Your task to perform on an android device: Show me the alarms in the clock app Image 0: 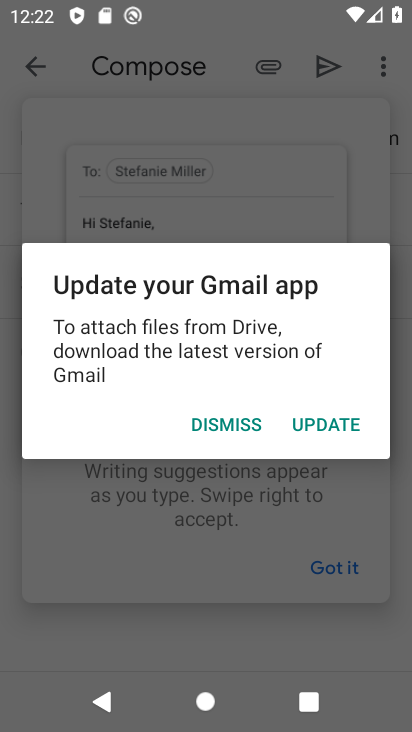
Step 0: press home button
Your task to perform on an android device: Show me the alarms in the clock app Image 1: 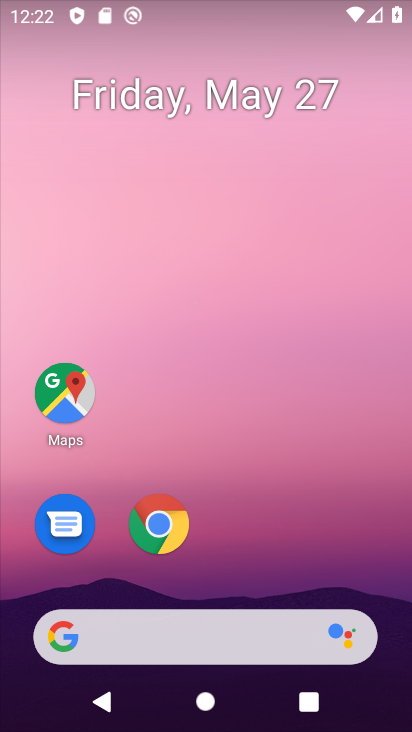
Step 1: drag from (257, 532) to (286, 29)
Your task to perform on an android device: Show me the alarms in the clock app Image 2: 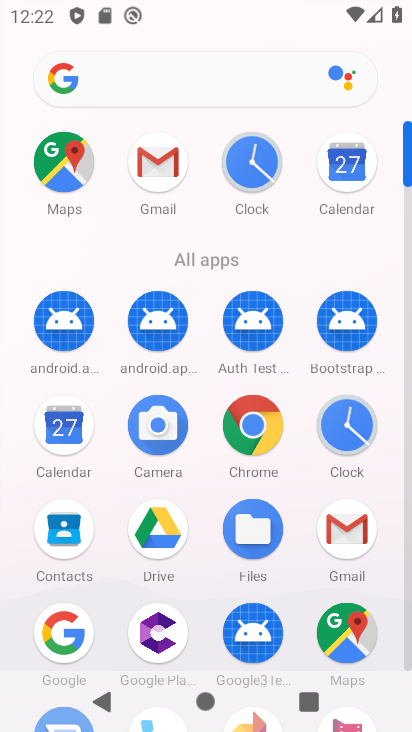
Step 2: click (265, 161)
Your task to perform on an android device: Show me the alarms in the clock app Image 3: 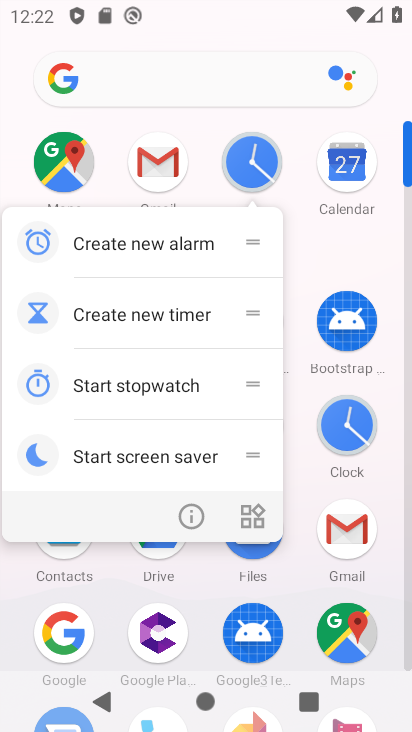
Step 3: click (250, 169)
Your task to perform on an android device: Show me the alarms in the clock app Image 4: 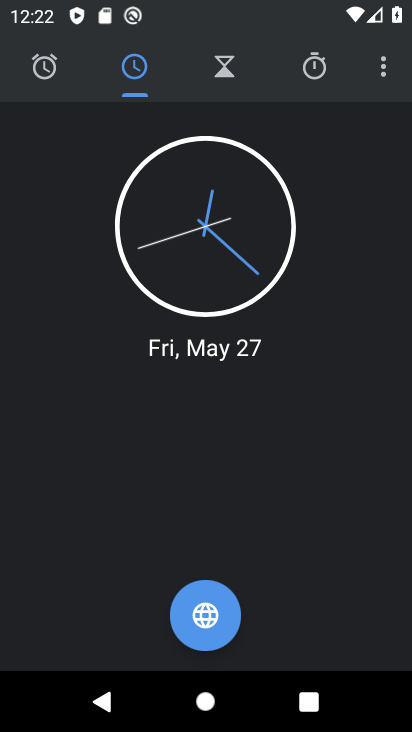
Step 4: click (39, 72)
Your task to perform on an android device: Show me the alarms in the clock app Image 5: 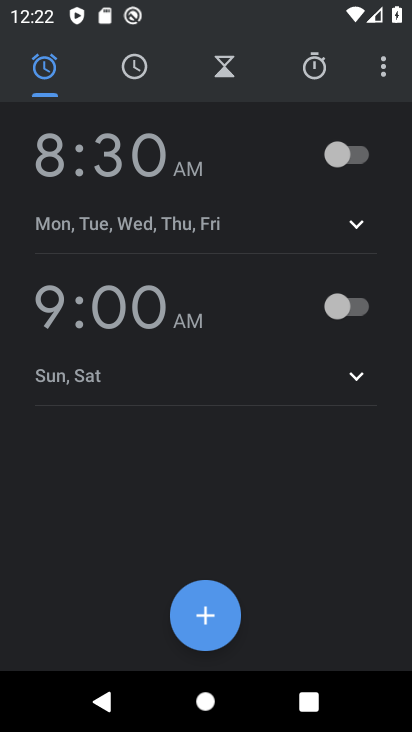
Step 5: task complete